Your task to perform on an android device: check google app version Image 0: 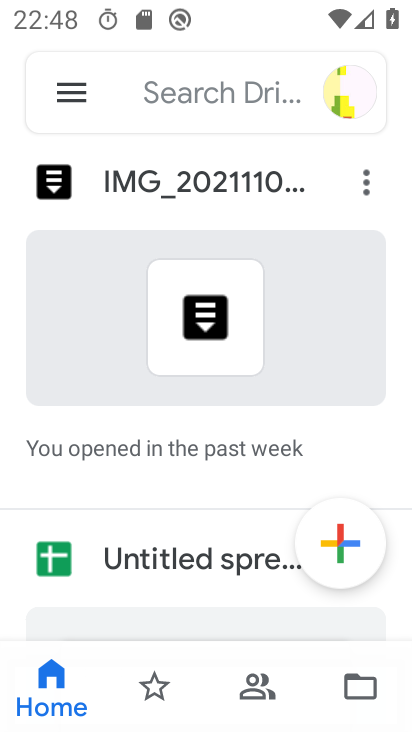
Step 0: press home button
Your task to perform on an android device: check google app version Image 1: 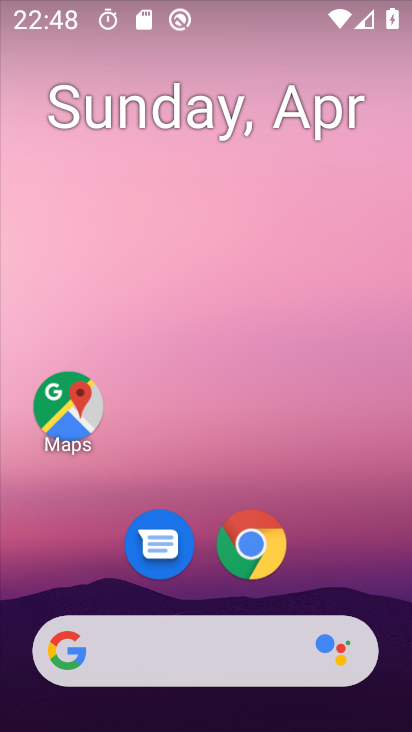
Step 1: drag from (297, 537) to (311, 293)
Your task to perform on an android device: check google app version Image 2: 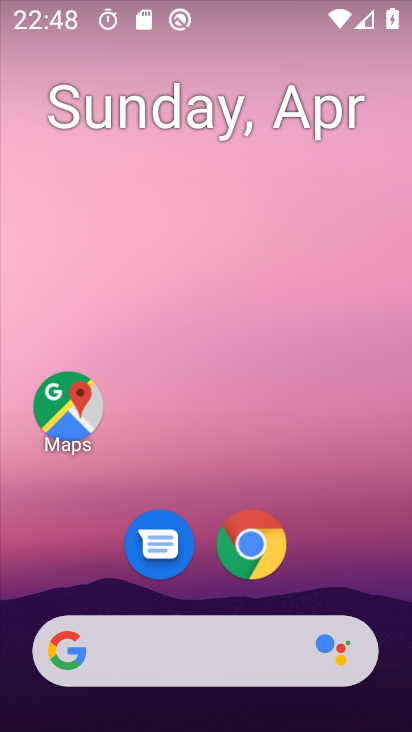
Step 2: drag from (327, 565) to (327, 182)
Your task to perform on an android device: check google app version Image 3: 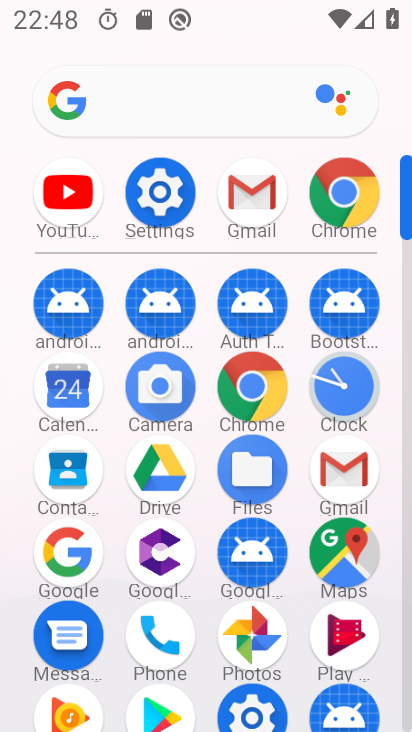
Step 3: click (66, 548)
Your task to perform on an android device: check google app version Image 4: 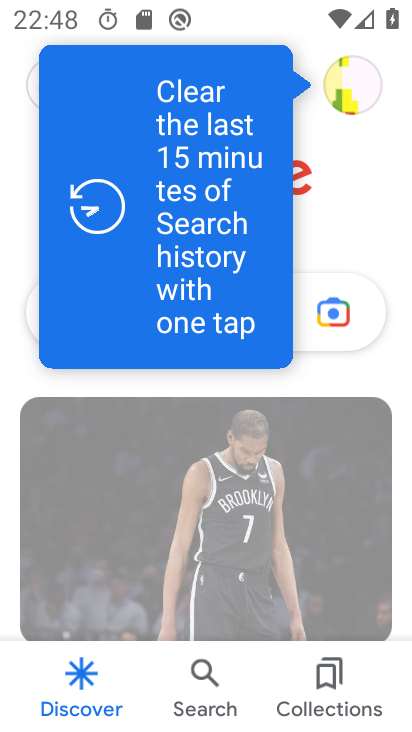
Step 4: click (366, 78)
Your task to perform on an android device: check google app version Image 5: 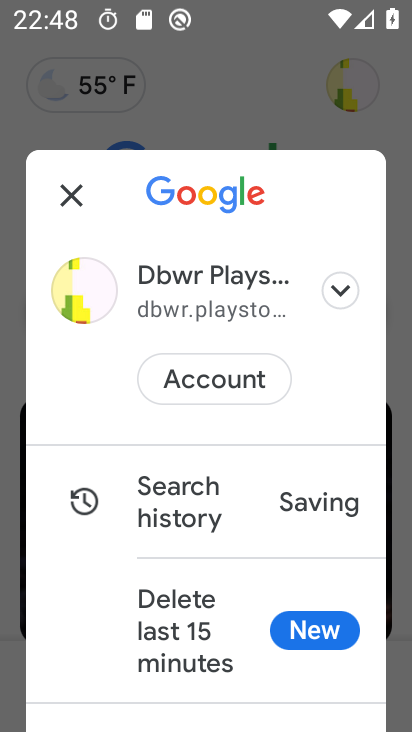
Step 5: drag from (156, 639) to (259, 182)
Your task to perform on an android device: check google app version Image 6: 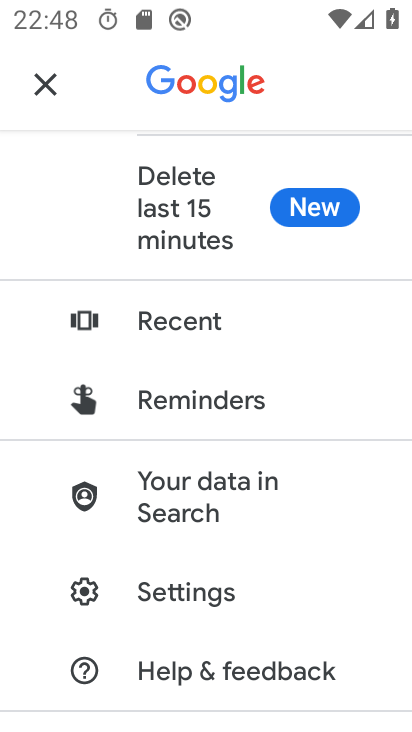
Step 6: click (193, 591)
Your task to perform on an android device: check google app version Image 7: 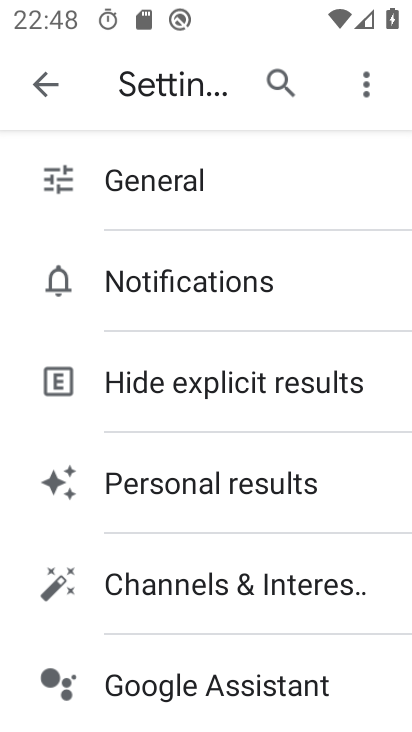
Step 7: drag from (223, 614) to (271, 207)
Your task to perform on an android device: check google app version Image 8: 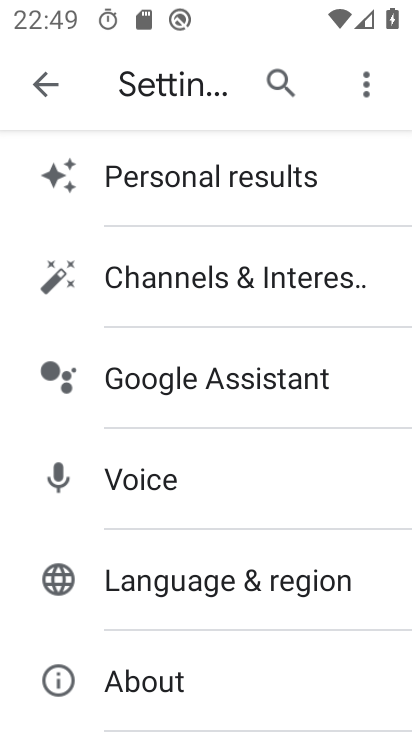
Step 8: click (195, 662)
Your task to perform on an android device: check google app version Image 9: 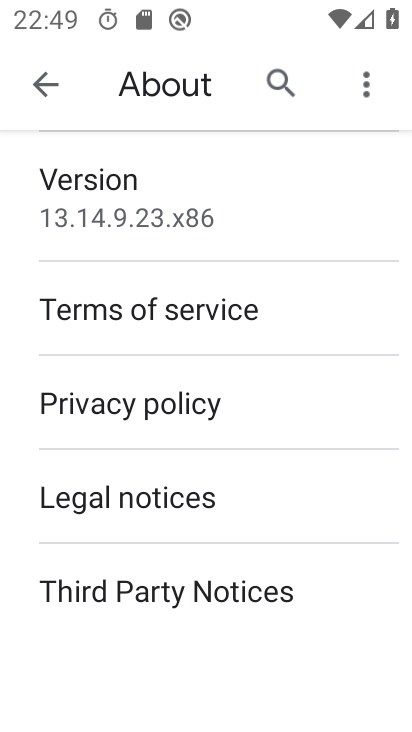
Step 9: click (165, 224)
Your task to perform on an android device: check google app version Image 10: 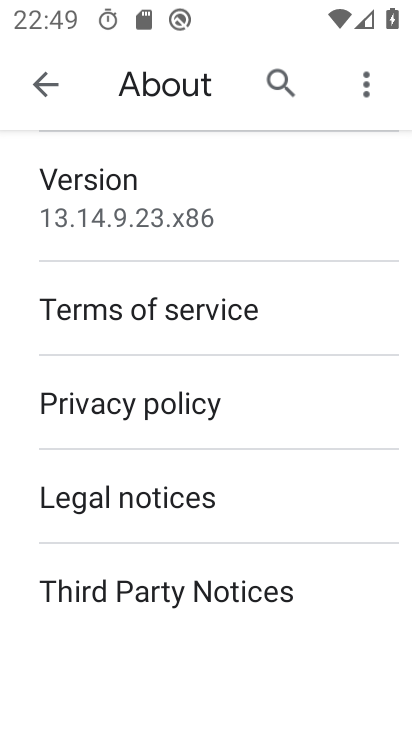
Step 10: click (165, 224)
Your task to perform on an android device: check google app version Image 11: 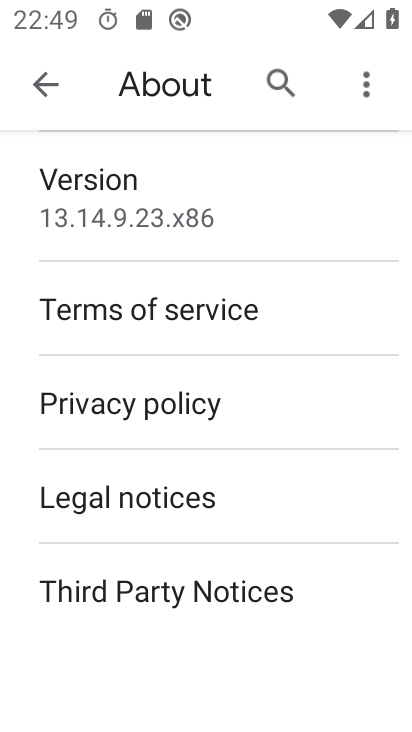
Step 11: task complete